Your task to perform on an android device: What is the recent news? Image 0: 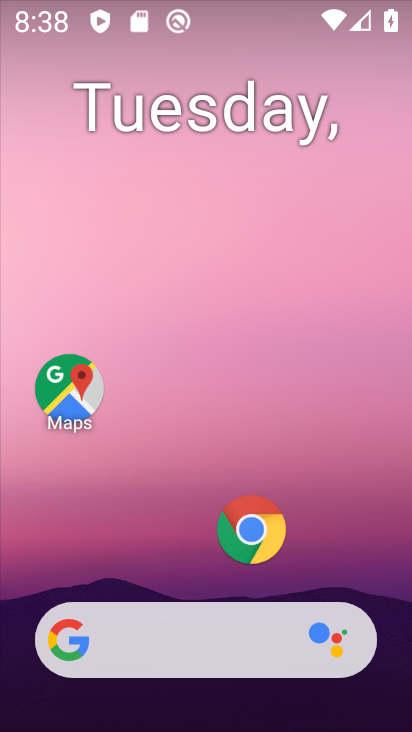
Step 0: drag from (5, 262) to (406, 333)
Your task to perform on an android device: What is the recent news? Image 1: 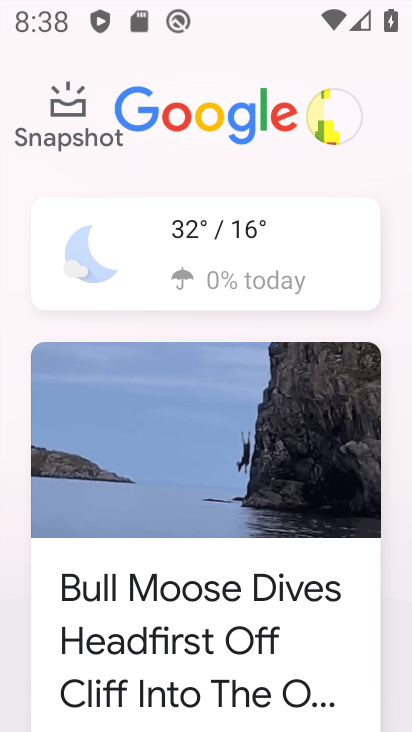
Step 1: task complete